Your task to perform on an android device: Search for a 24-inch cordless drill. Image 0: 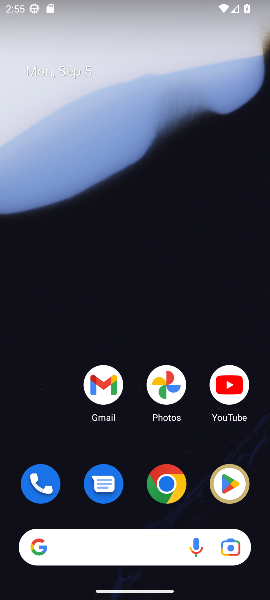
Step 0: click (266, 479)
Your task to perform on an android device: Search for a 24-inch cordless drill. Image 1: 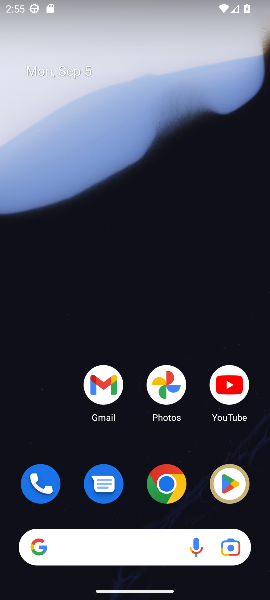
Step 1: click (165, 490)
Your task to perform on an android device: Search for a 24-inch cordless drill. Image 2: 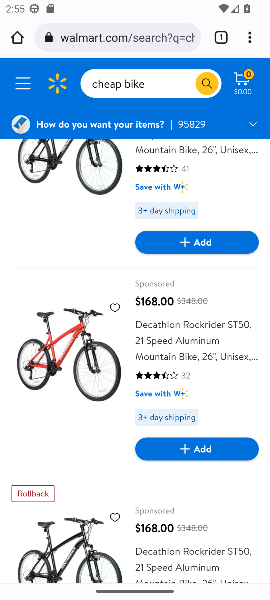
Step 2: click (165, 39)
Your task to perform on an android device: Search for a 24-inch cordless drill. Image 3: 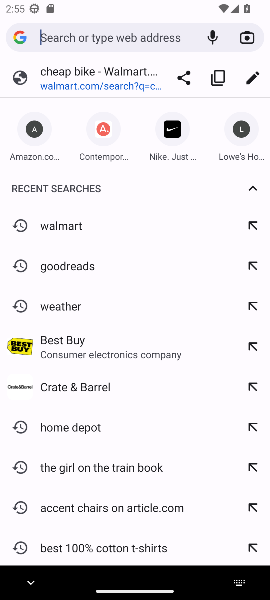
Step 3: type "24-inch cordless drill"
Your task to perform on an android device: Search for a 24-inch cordless drill. Image 4: 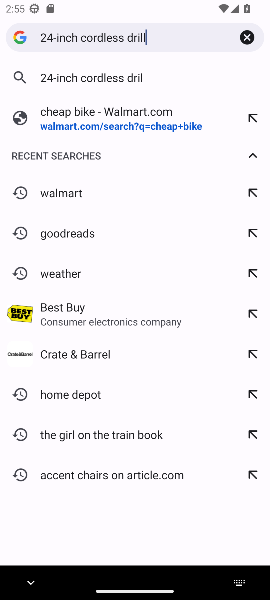
Step 4: press enter
Your task to perform on an android device: Search for a 24-inch cordless drill. Image 5: 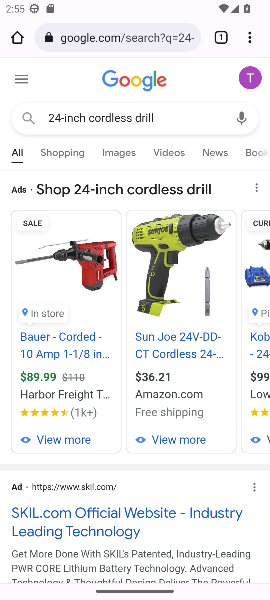
Step 5: task complete